Your task to perform on an android device: Search for seafood restaurants on Google Maps Image 0: 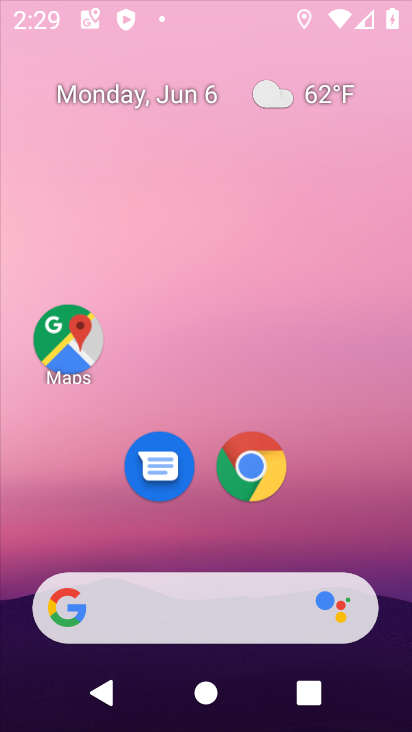
Step 0: drag from (258, 396) to (258, 77)
Your task to perform on an android device: Search for seafood restaurants on Google Maps Image 1: 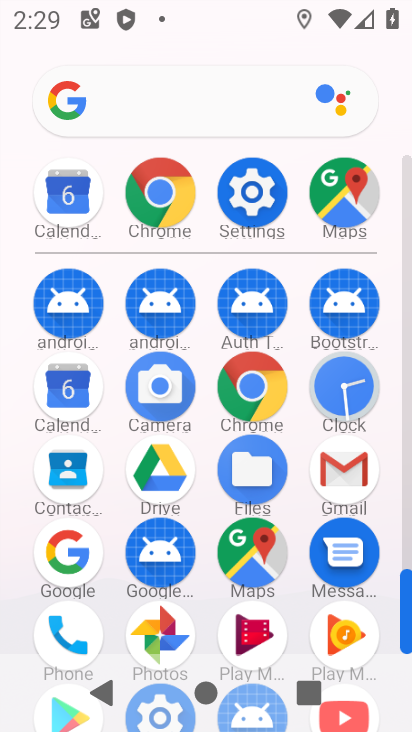
Step 1: click (263, 526)
Your task to perform on an android device: Search for seafood restaurants on Google Maps Image 2: 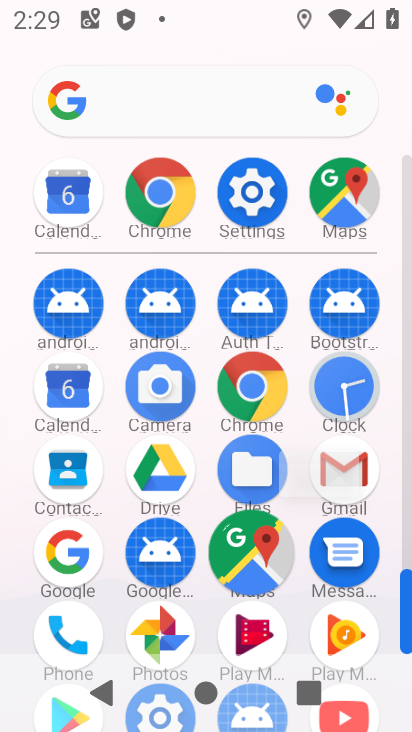
Step 2: click (263, 527)
Your task to perform on an android device: Search for seafood restaurants on Google Maps Image 3: 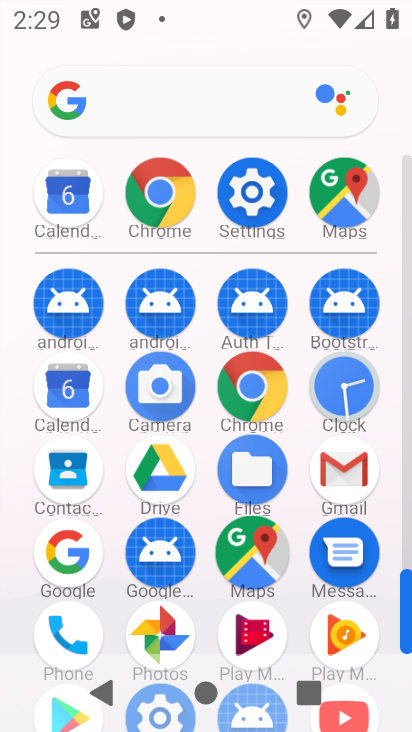
Step 3: click (263, 527)
Your task to perform on an android device: Search for seafood restaurants on Google Maps Image 4: 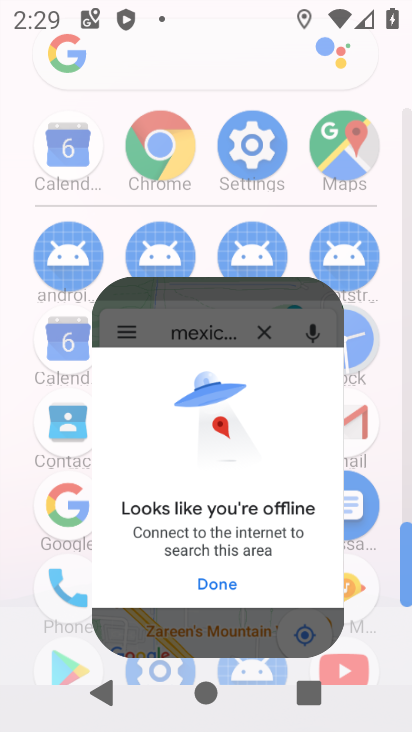
Step 4: click (248, 540)
Your task to perform on an android device: Search for seafood restaurants on Google Maps Image 5: 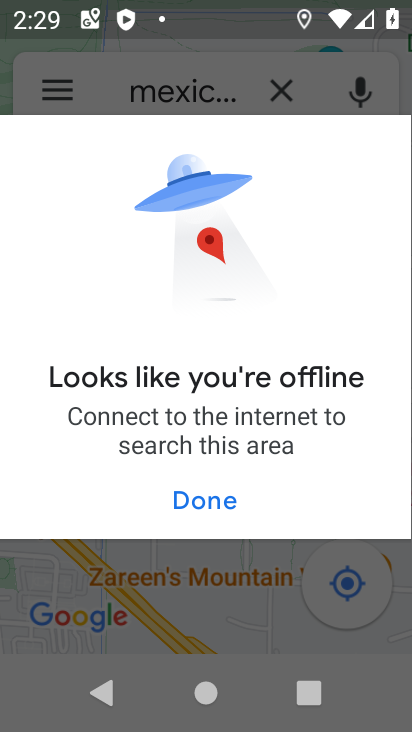
Step 5: click (275, 554)
Your task to perform on an android device: Search for seafood restaurants on Google Maps Image 6: 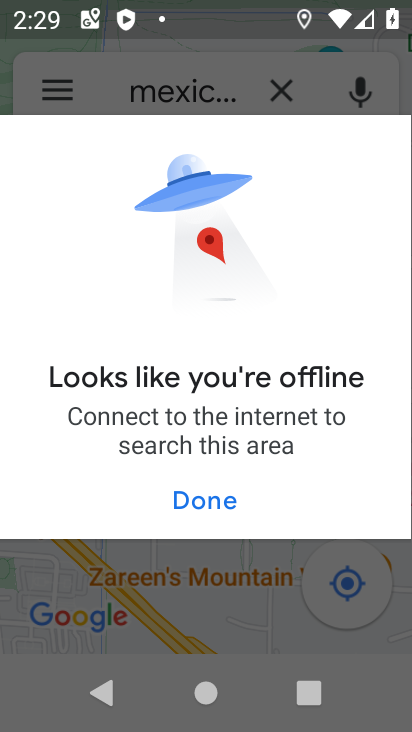
Step 6: click (210, 503)
Your task to perform on an android device: Search for seafood restaurants on Google Maps Image 7: 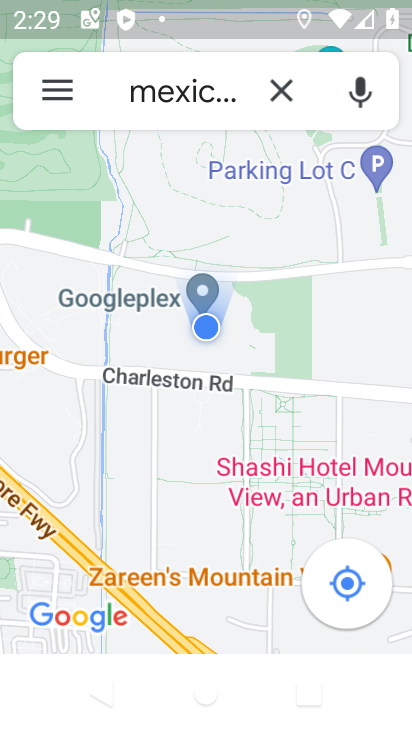
Step 7: task complete